Your task to perform on an android device: Open settings Image 0: 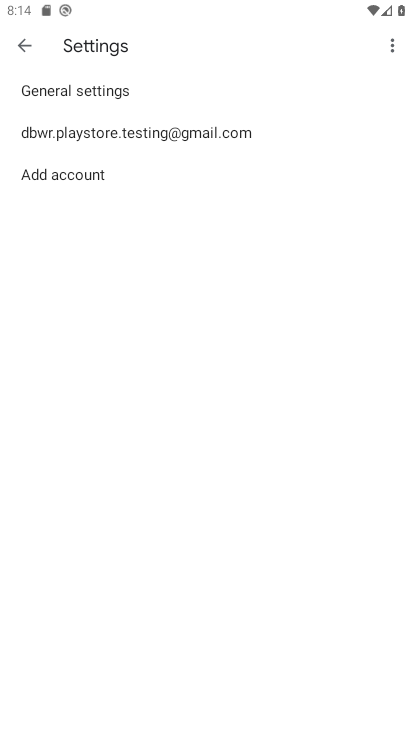
Step 0: press home button
Your task to perform on an android device: Open settings Image 1: 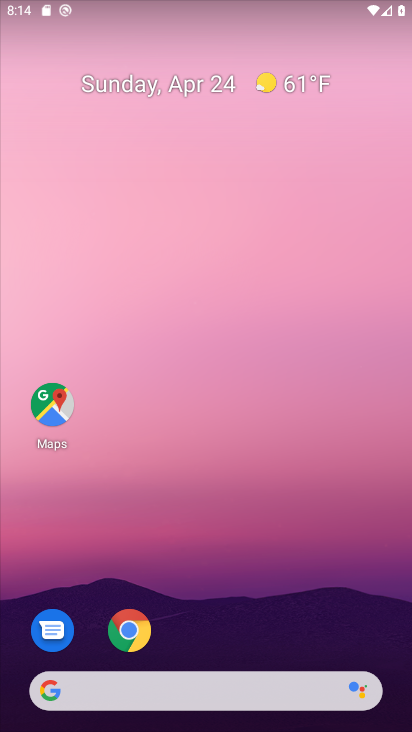
Step 1: drag from (362, 601) to (331, 91)
Your task to perform on an android device: Open settings Image 2: 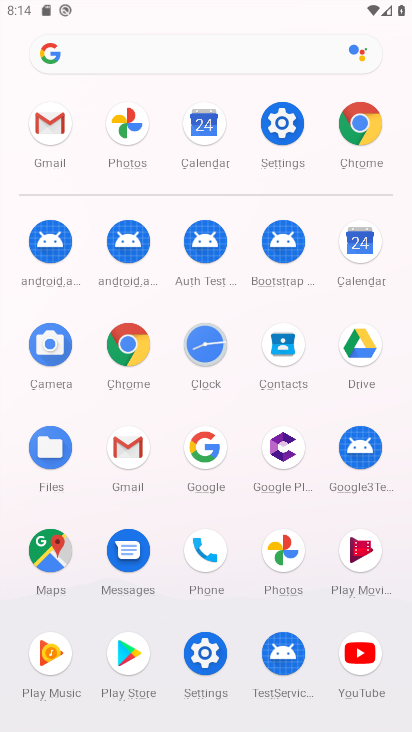
Step 2: click (273, 122)
Your task to perform on an android device: Open settings Image 3: 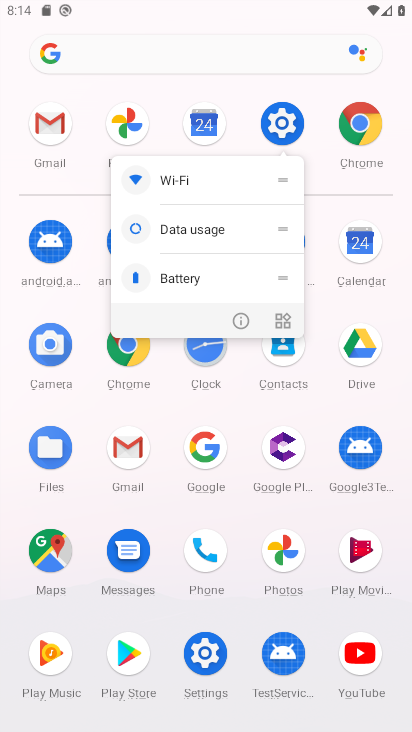
Step 3: click (279, 115)
Your task to perform on an android device: Open settings Image 4: 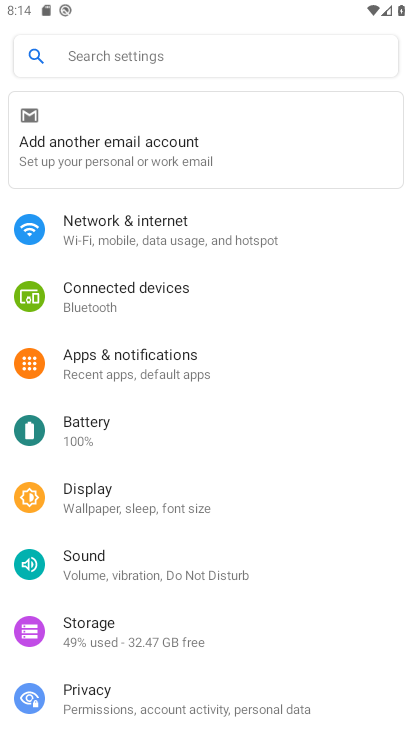
Step 4: task complete